Your task to perform on an android device: turn on improve location accuracy Image 0: 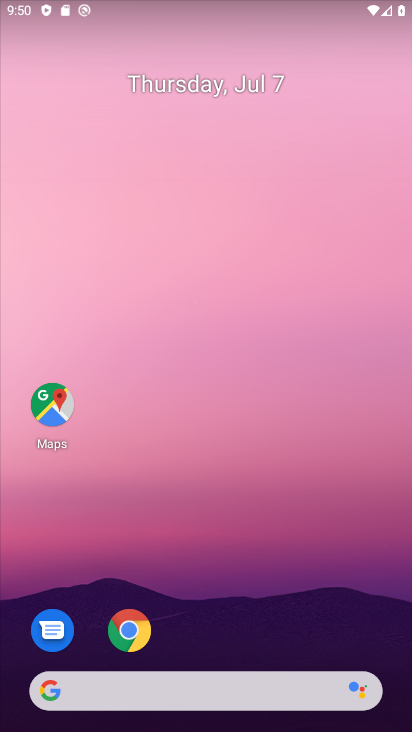
Step 0: press home button
Your task to perform on an android device: turn on improve location accuracy Image 1: 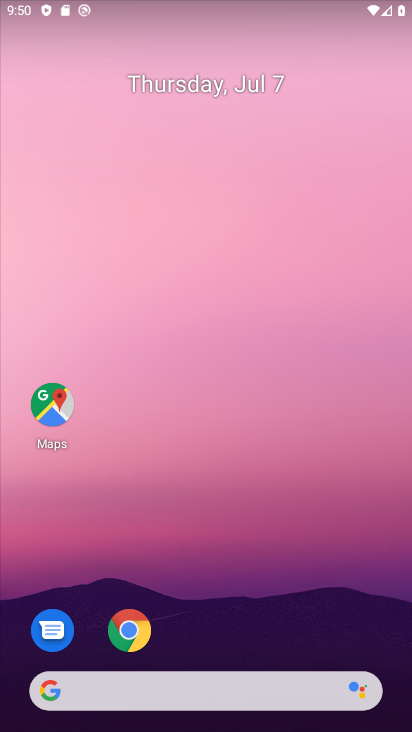
Step 1: drag from (220, 655) to (185, 11)
Your task to perform on an android device: turn on improve location accuracy Image 2: 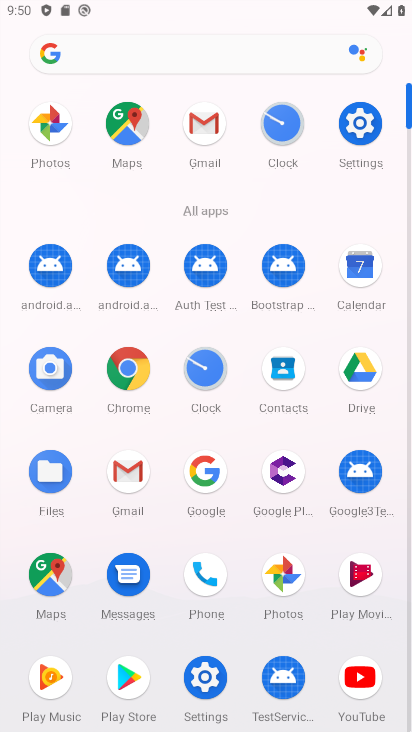
Step 2: click (362, 119)
Your task to perform on an android device: turn on improve location accuracy Image 3: 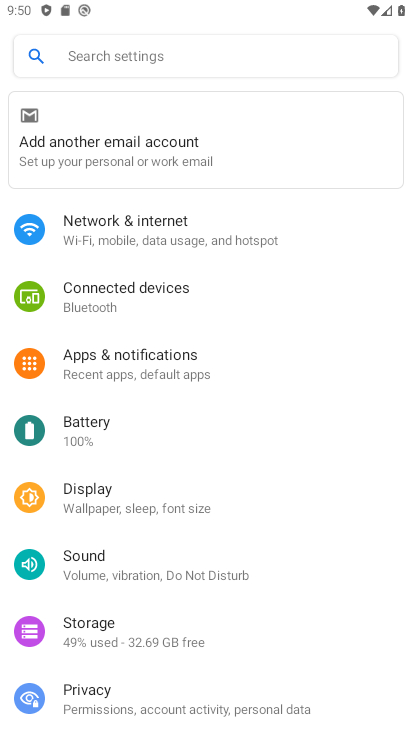
Step 3: drag from (139, 683) to (135, 138)
Your task to perform on an android device: turn on improve location accuracy Image 4: 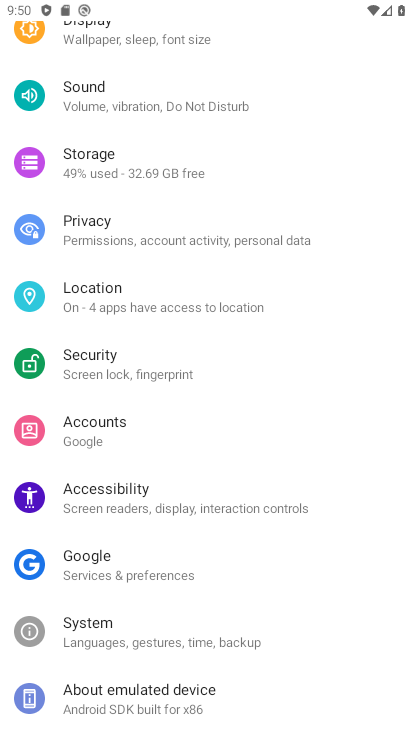
Step 4: click (134, 290)
Your task to perform on an android device: turn on improve location accuracy Image 5: 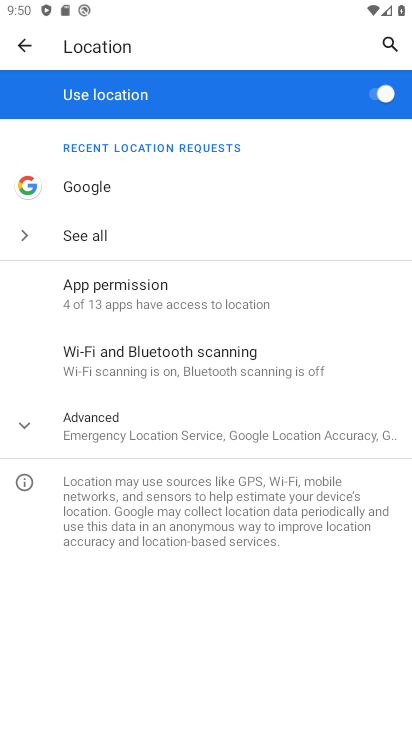
Step 5: click (35, 424)
Your task to perform on an android device: turn on improve location accuracy Image 6: 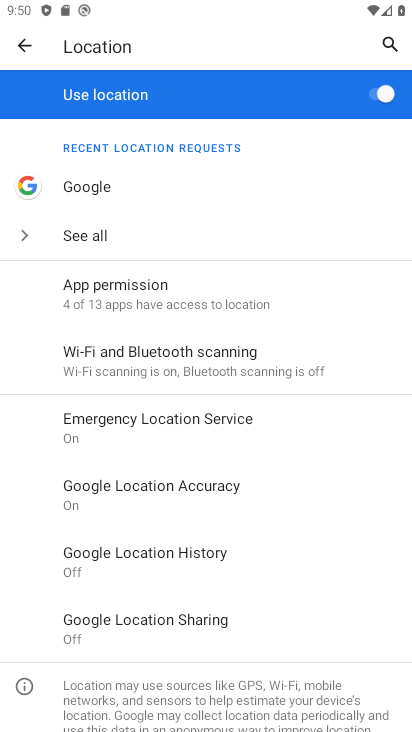
Step 6: click (145, 495)
Your task to perform on an android device: turn on improve location accuracy Image 7: 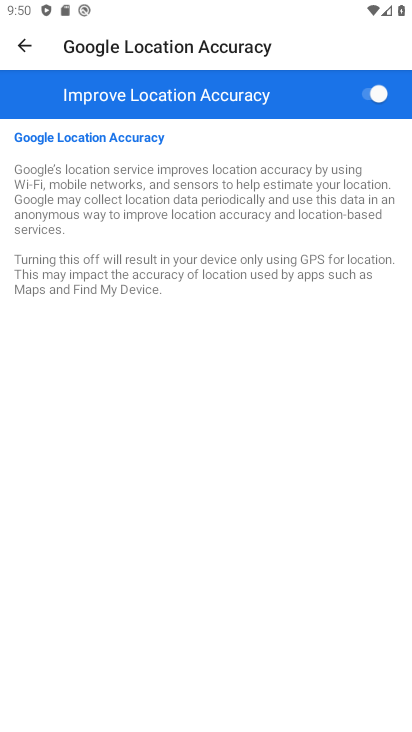
Step 7: task complete